Your task to perform on an android device: What is the recent news? Image 0: 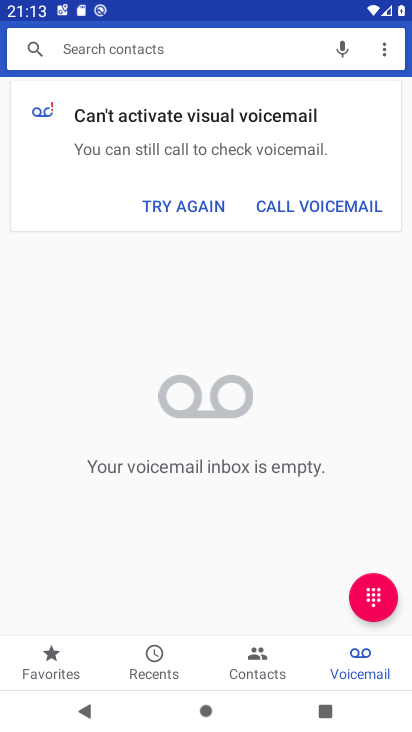
Step 0: press home button
Your task to perform on an android device: What is the recent news? Image 1: 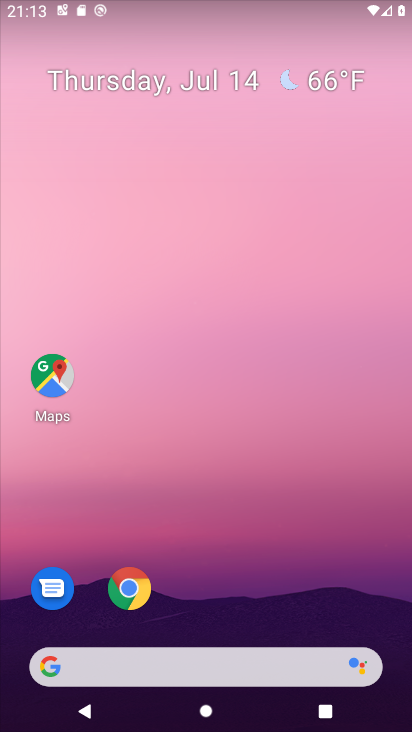
Step 1: task complete